Your task to perform on an android device: Open calendar and show me the fourth week of next month Image 0: 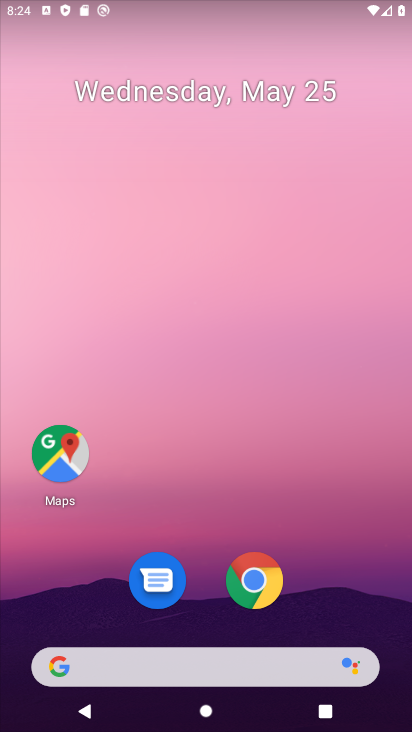
Step 0: press home button
Your task to perform on an android device: Open calendar and show me the fourth week of next month Image 1: 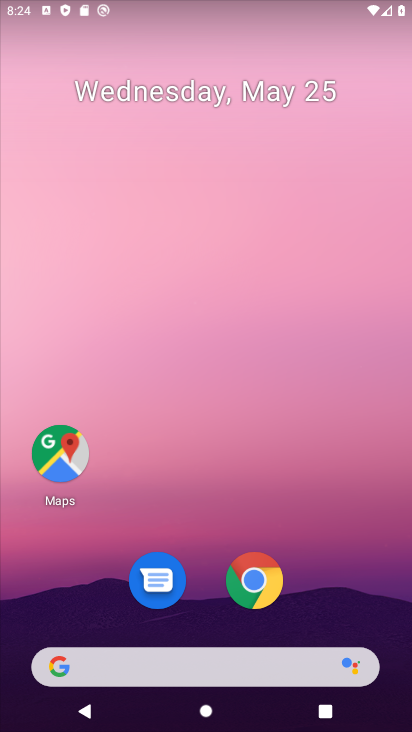
Step 1: drag from (9, 603) to (211, 147)
Your task to perform on an android device: Open calendar and show me the fourth week of next month Image 2: 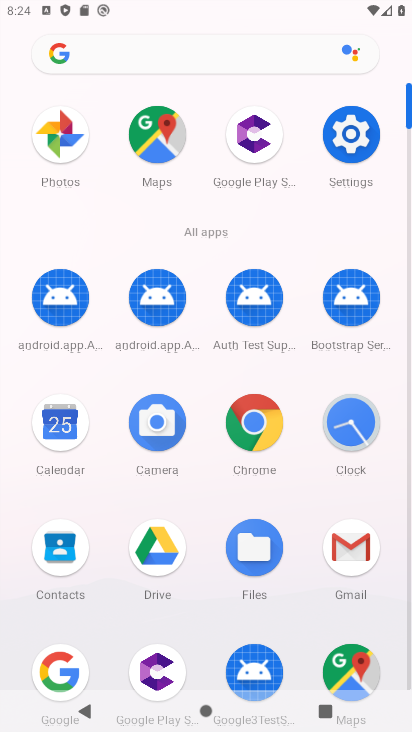
Step 2: click (47, 425)
Your task to perform on an android device: Open calendar and show me the fourth week of next month Image 3: 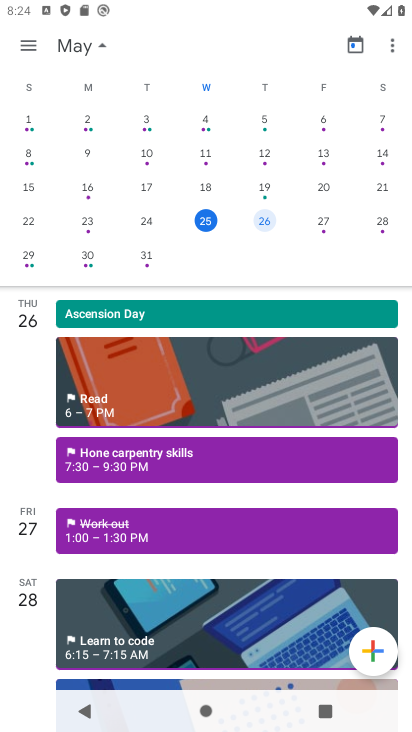
Step 3: drag from (408, 141) to (9, 105)
Your task to perform on an android device: Open calendar and show me the fourth week of next month Image 4: 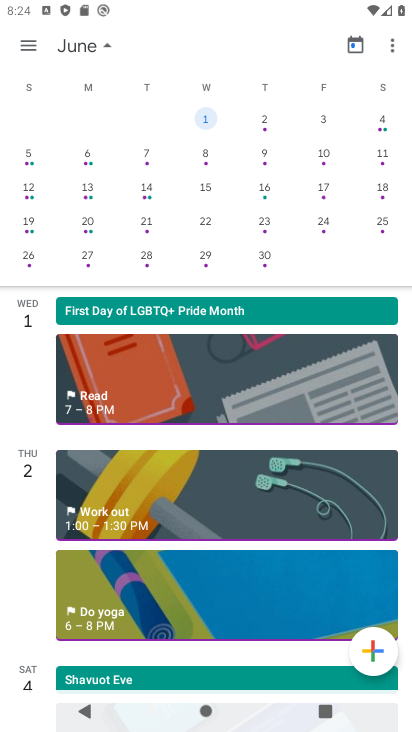
Step 4: click (204, 158)
Your task to perform on an android device: Open calendar and show me the fourth week of next month Image 5: 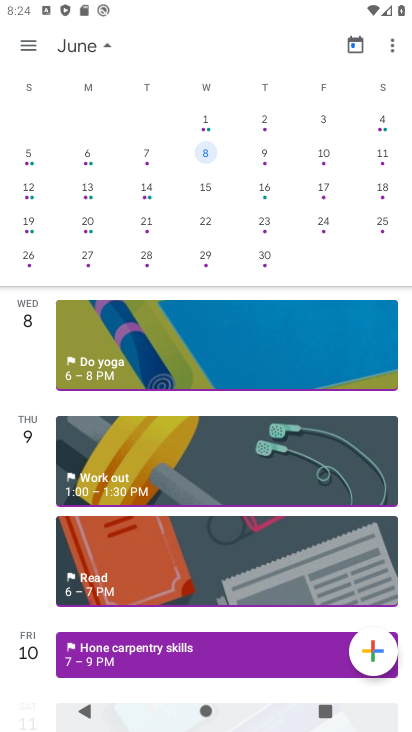
Step 5: click (201, 194)
Your task to perform on an android device: Open calendar and show me the fourth week of next month Image 6: 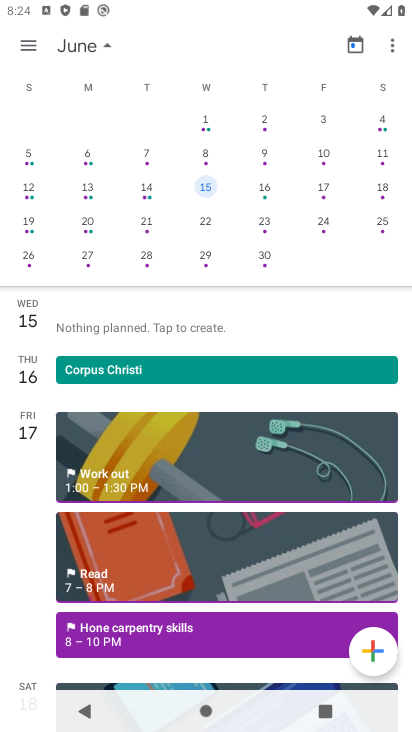
Step 6: click (202, 220)
Your task to perform on an android device: Open calendar and show me the fourth week of next month Image 7: 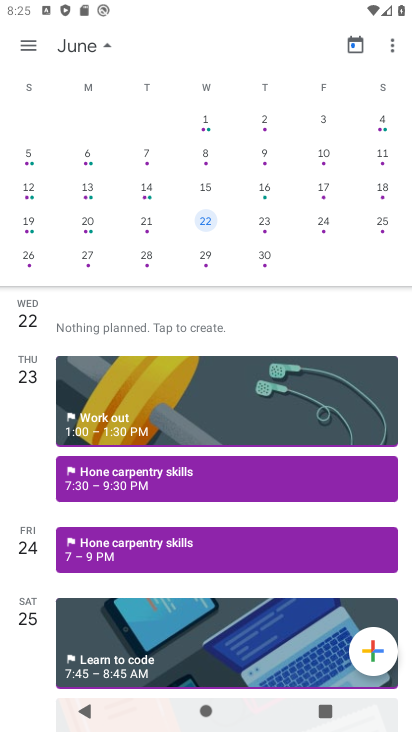
Step 7: task complete